Your task to perform on an android device: add a contact in the contacts app Image 0: 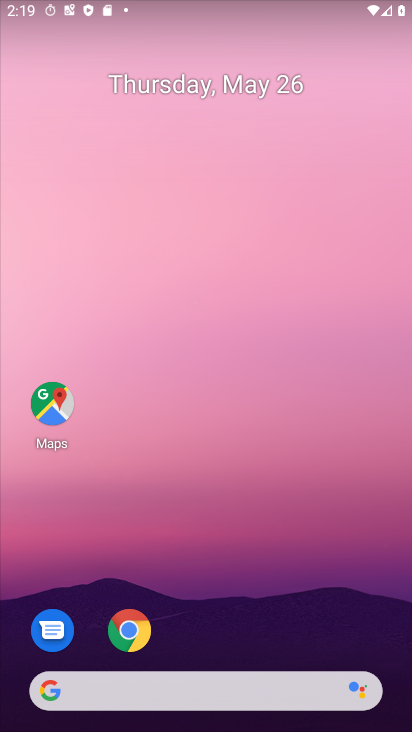
Step 0: drag from (215, 635) to (244, 182)
Your task to perform on an android device: add a contact in the contacts app Image 1: 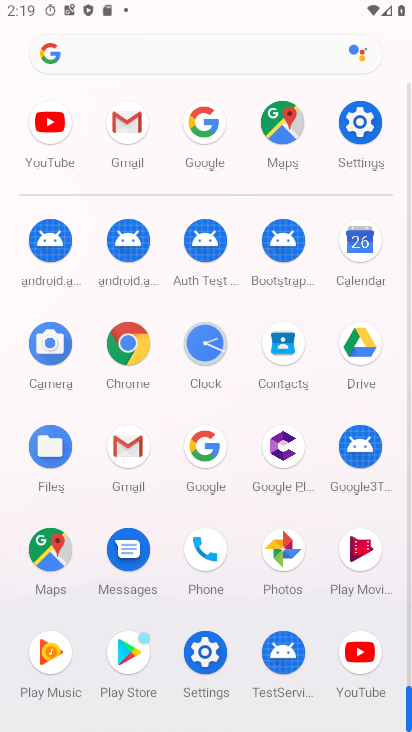
Step 1: click (269, 343)
Your task to perform on an android device: add a contact in the contacts app Image 2: 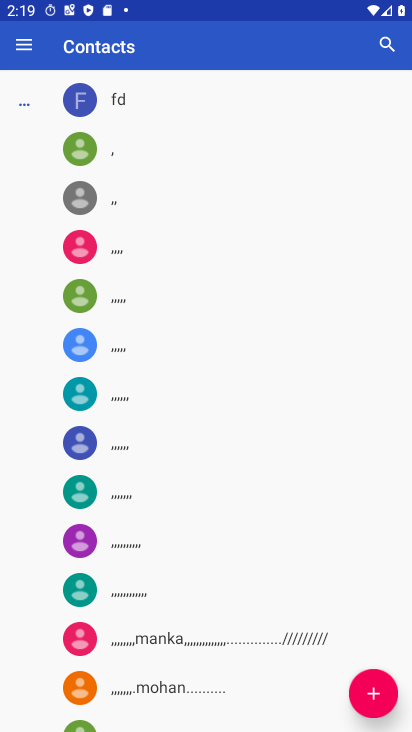
Step 2: click (375, 695)
Your task to perform on an android device: add a contact in the contacts app Image 3: 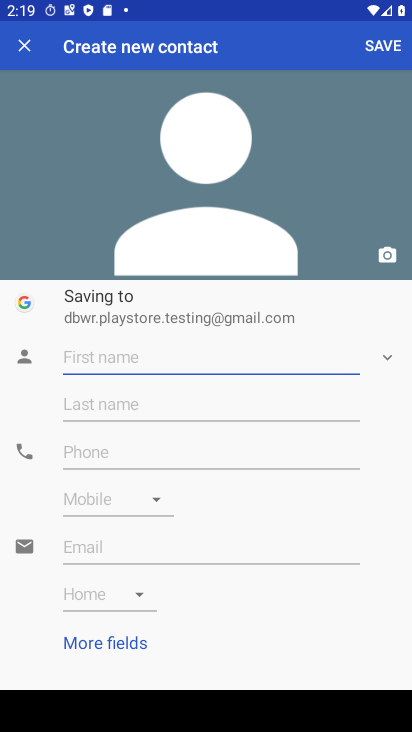
Step 3: type "ygyy"
Your task to perform on an android device: add a contact in the contacts app Image 4: 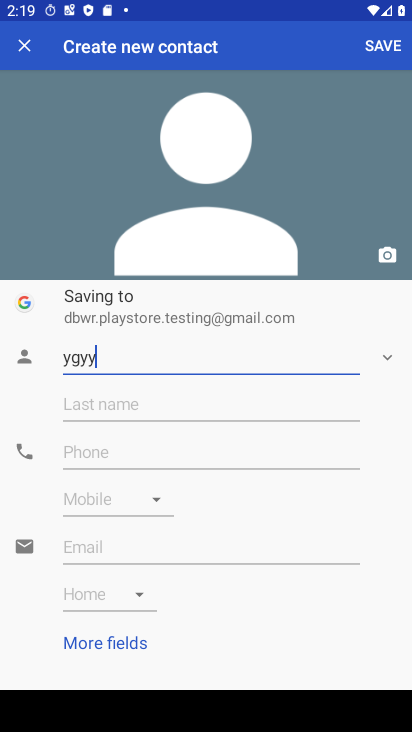
Step 4: click (149, 449)
Your task to perform on an android device: add a contact in the contacts app Image 5: 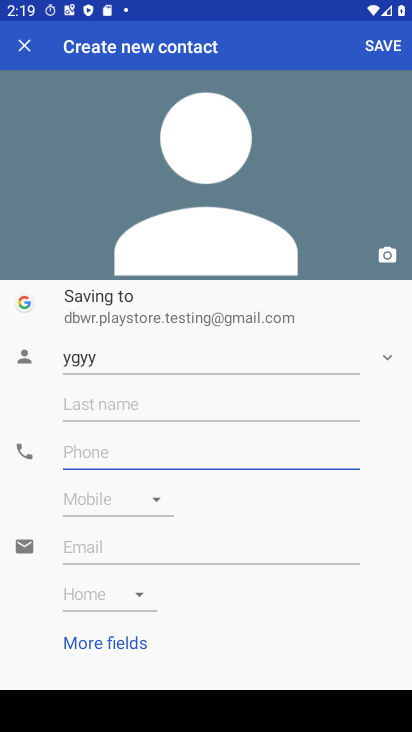
Step 5: type "8979687768"
Your task to perform on an android device: add a contact in the contacts app Image 6: 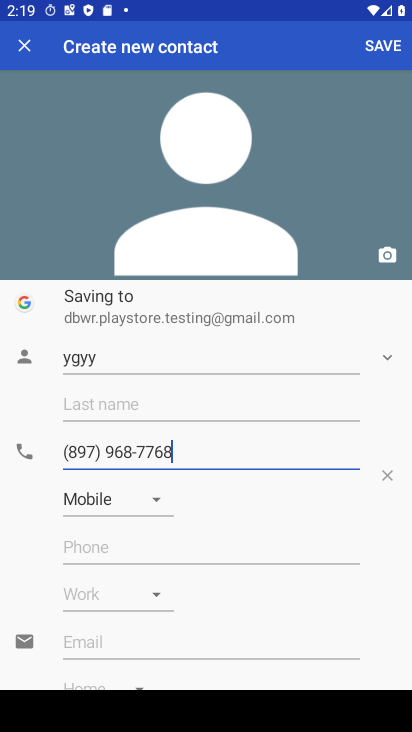
Step 6: click (391, 47)
Your task to perform on an android device: add a contact in the contacts app Image 7: 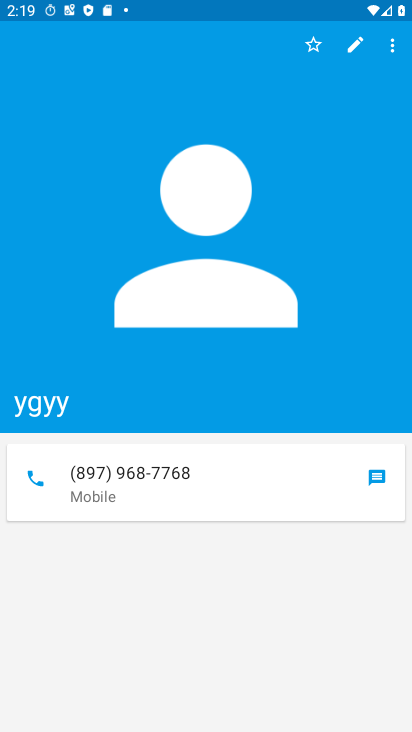
Step 7: task complete